Your task to perform on an android device: star an email in the gmail app Image 0: 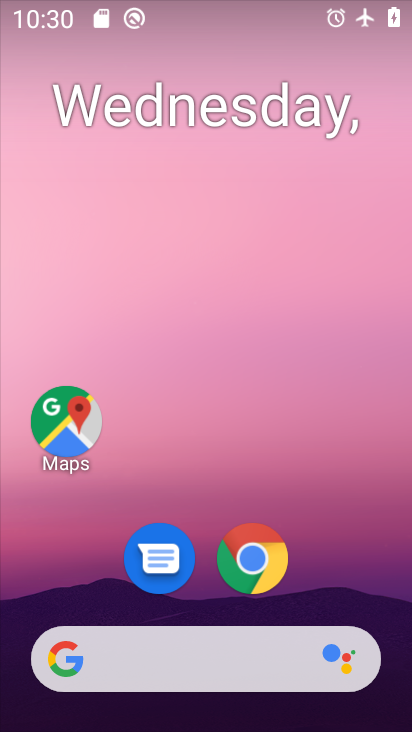
Step 0: drag from (343, 590) to (350, 204)
Your task to perform on an android device: star an email in the gmail app Image 1: 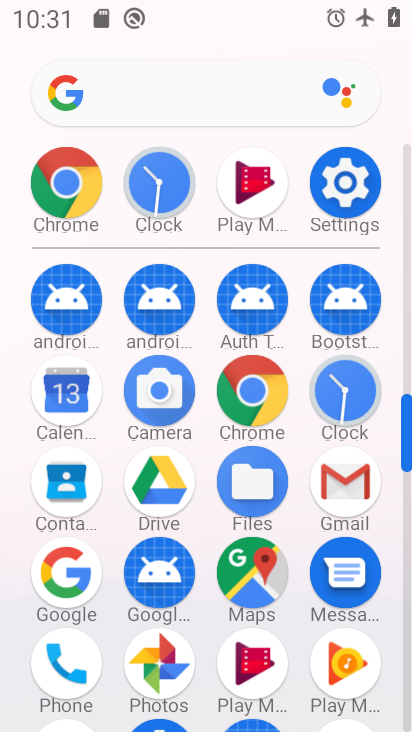
Step 1: click (338, 484)
Your task to perform on an android device: star an email in the gmail app Image 2: 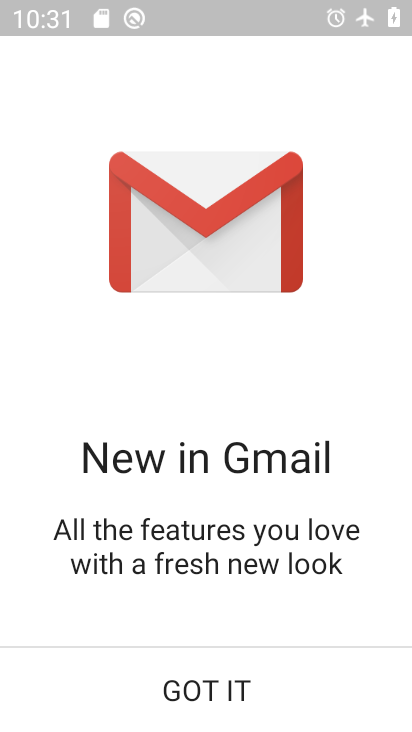
Step 2: click (223, 679)
Your task to perform on an android device: star an email in the gmail app Image 3: 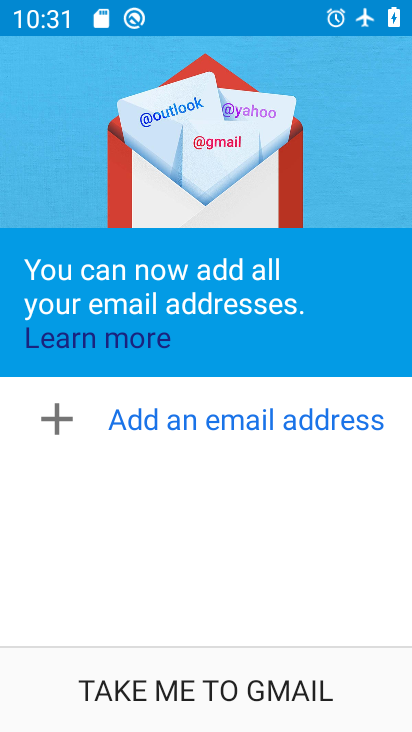
Step 3: click (223, 679)
Your task to perform on an android device: star an email in the gmail app Image 4: 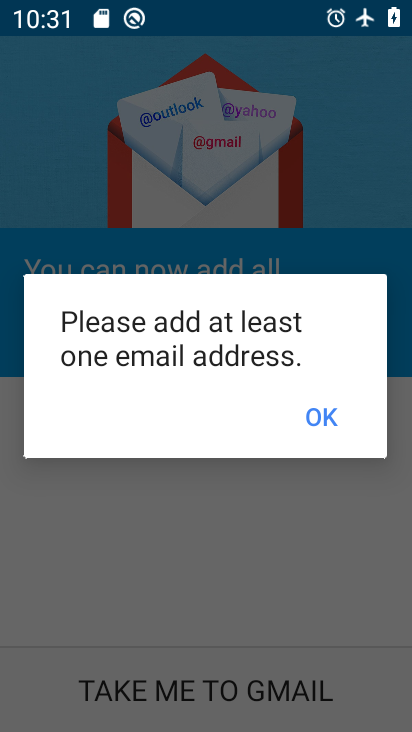
Step 4: task complete